Your task to perform on an android device: open wifi settings Image 0: 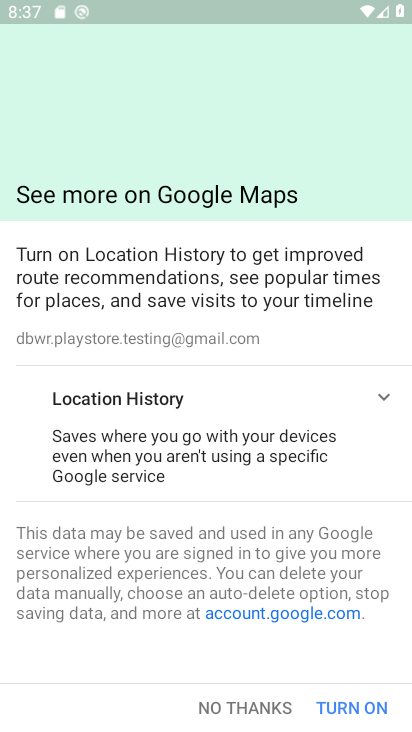
Step 0: press home button
Your task to perform on an android device: open wifi settings Image 1: 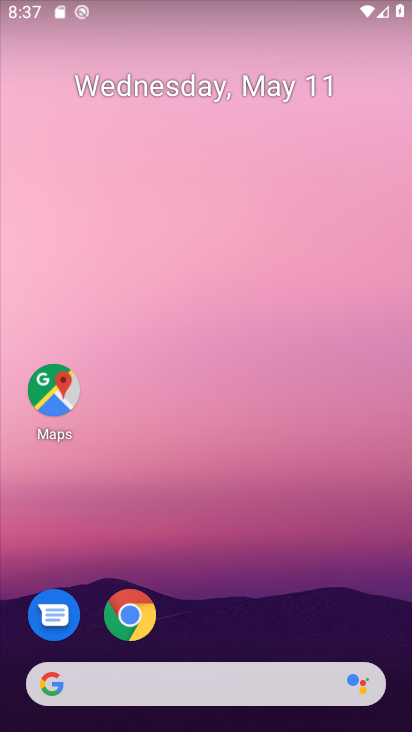
Step 1: drag from (304, 570) to (276, 2)
Your task to perform on an android device: open wifi settings Image 2: 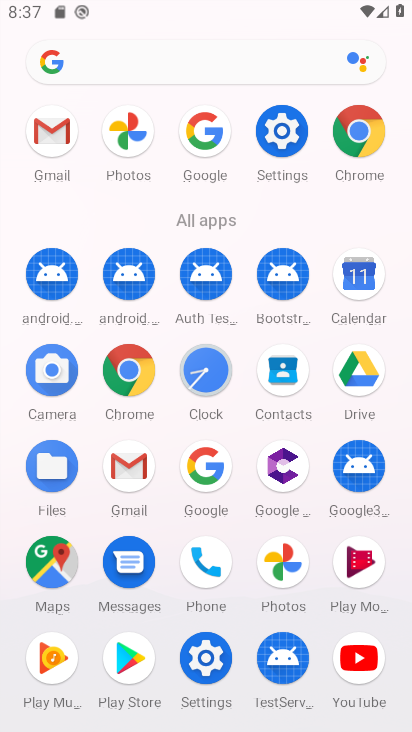
Step 2: click (281, 129)
Your task to perform on an android device: open wifi settings Image 3: 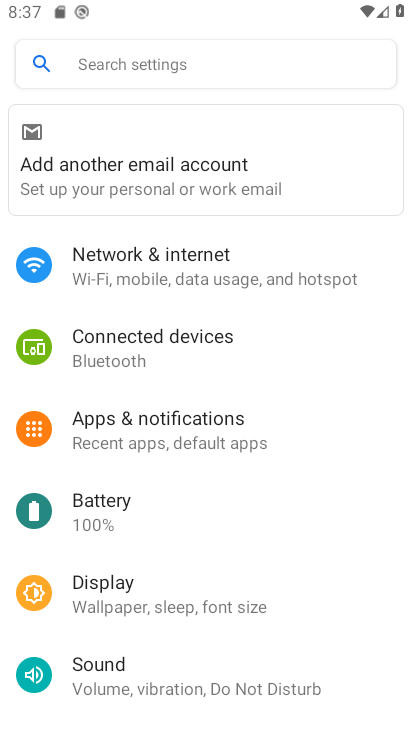
Step 3: click (195, 260)
Your task to perform on an android device: open wifi settings Image 4: 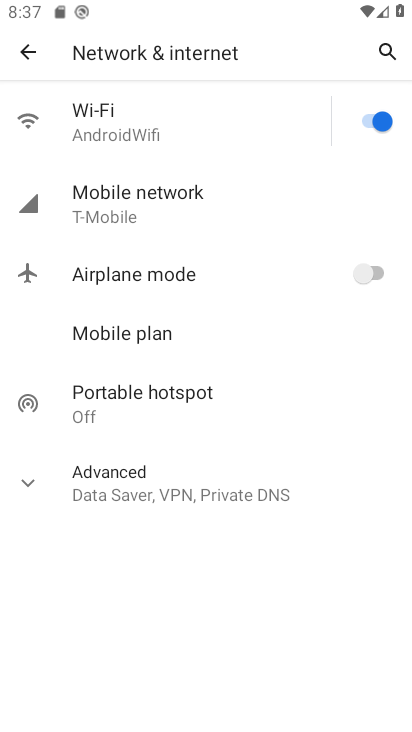
Step 4: click (138, 120)
Your task to perform on an android device: open wifi settings Image 5: 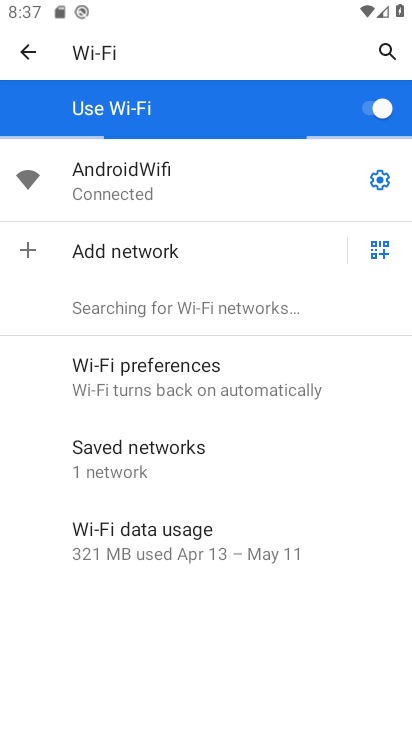
Step 5: task complete